Your task to perform on an android device: Go to Reddit.com Image 0: 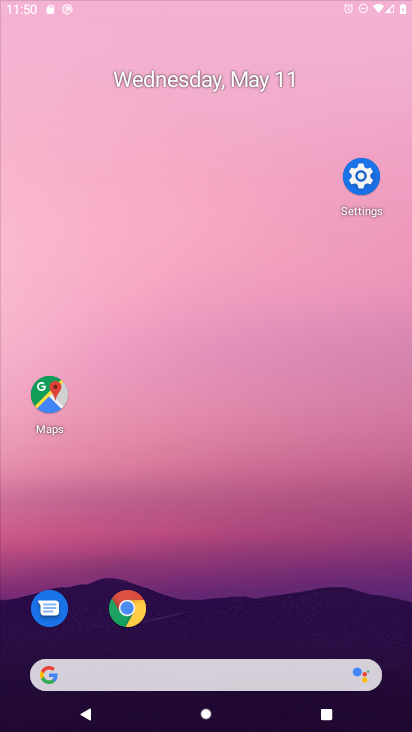
Step 0: drag from (194, 185) to (170, 149)
Your task to perform on an android device: Go to Reddit.com Image 1: 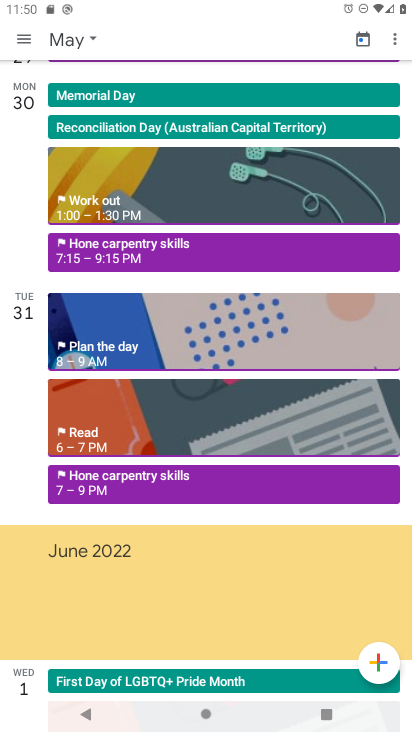
Step 1: press home button
Your task to perform on an android device: Go to Reddit.com Image 2: 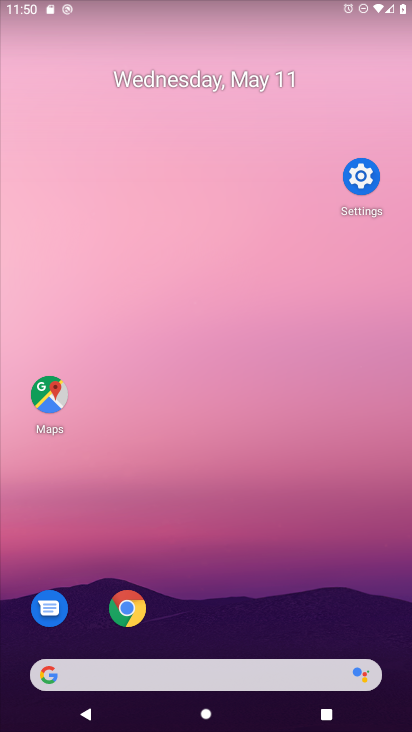
Step 2: click (119, 133)
Your task to perform on an android device: Go to Reddit.com Image 3: 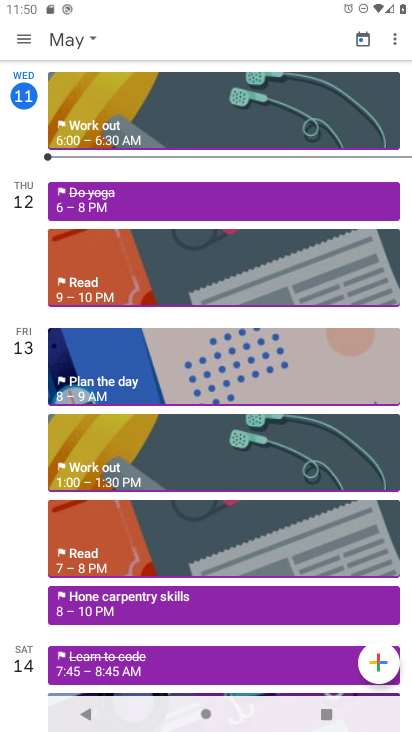
Step 3: press back button
Your task to perform on an android device: Go to Reddit.com Image 4: 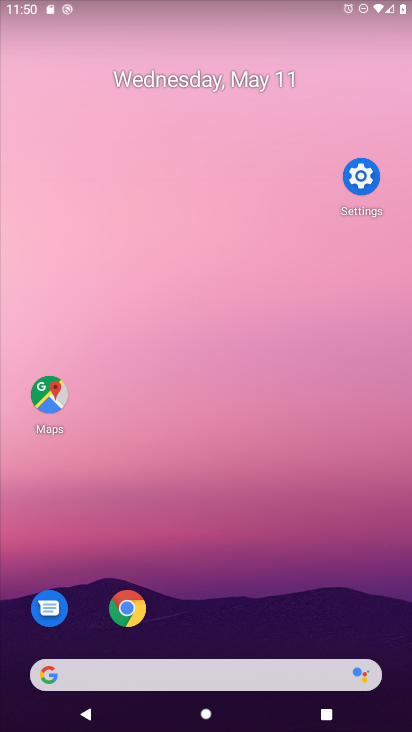
Step 4: drag from (355, 619) to (156, 174)
Your task to perform on an android device: Go to Reddit.com Image 5: 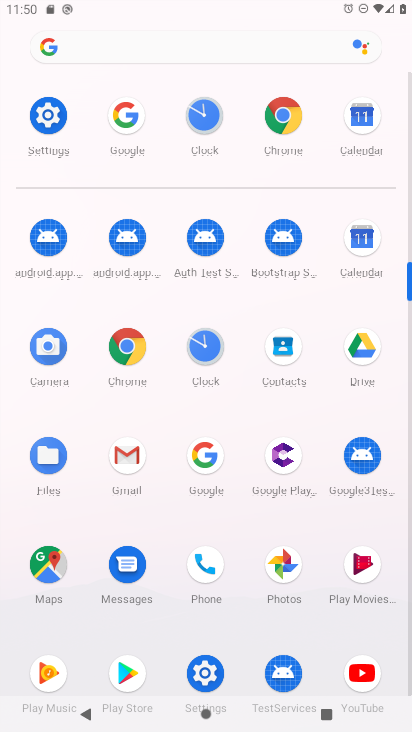
Step 5: click (281, 120)
Your task to perform on an android device: Go to Reddit.com Image 6: 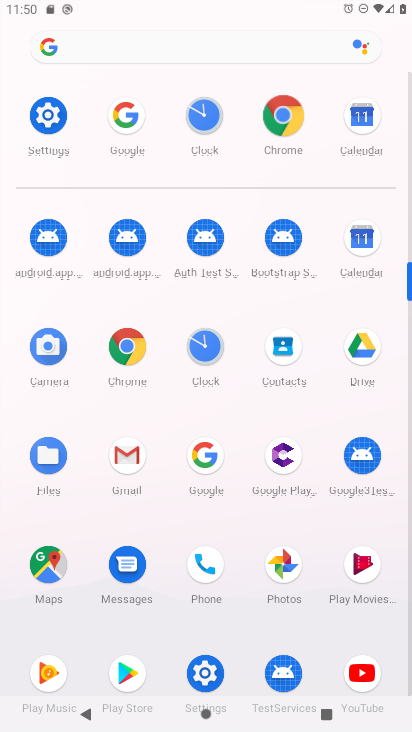
Step 6: click (282, 128)
Your task to perform on an android device: Go to Reddit.com Image 7: 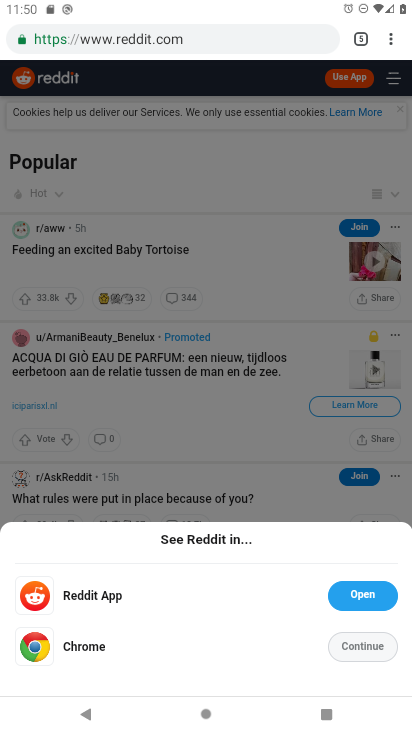
Step 7: drag from (388, 45) to (245, 74)
Your task to perform on an android device: Go to Reddit.com Image 8: 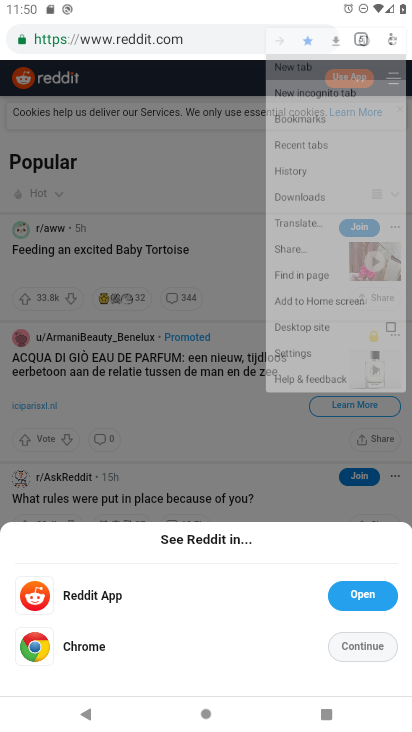
Step 8: click (245, 74)
Your task to perform on an android device: Go to Reddit.com Image 9: 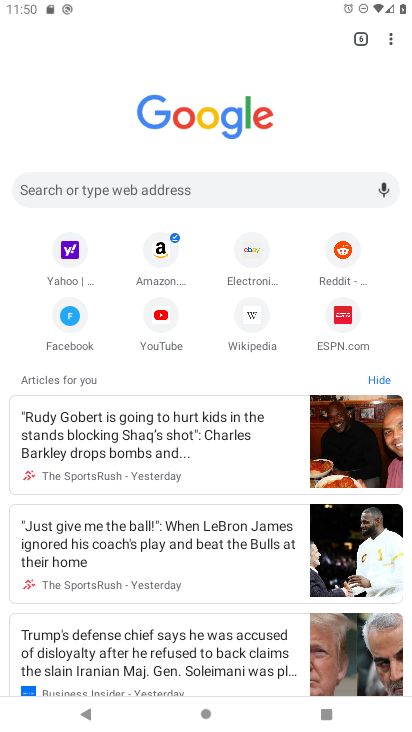
Step 9: click (72, 187)
Your task to perform on an android device: Go to Reddit.com Image 10: 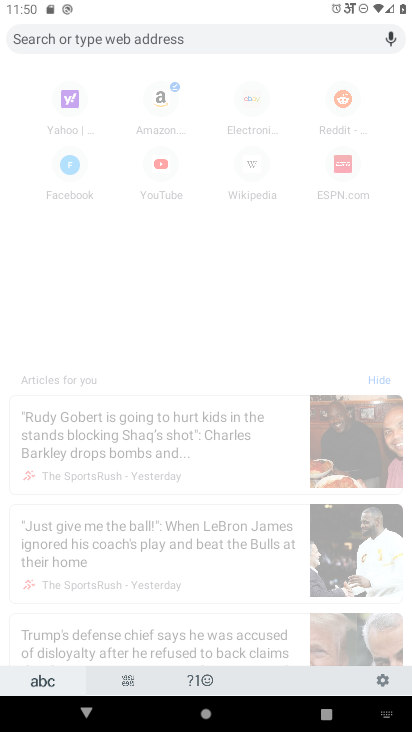
Step 10: click (343, 114)
Your task to perform on an android device: Go to Reddit.com Image 11: 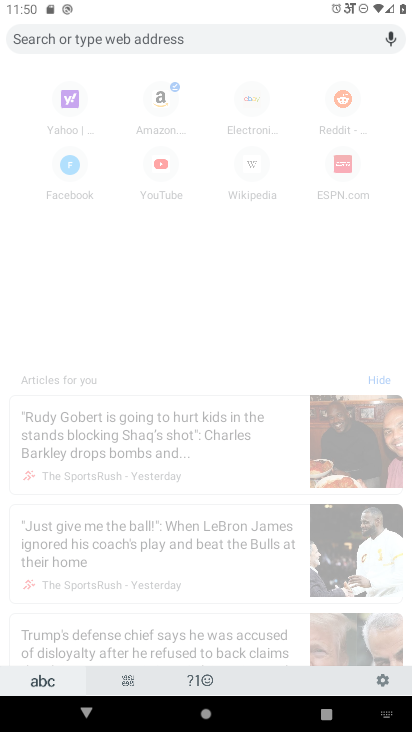
Step 11: click (343, 114)
Your task to perform on an android device: Go to Reddit.com Image 12: 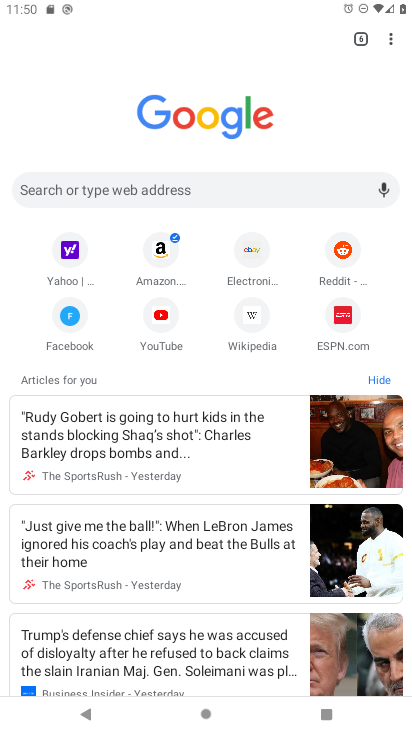
Step 12: click (340, 254)
Your task to perform on an android device: Go to Reddit.com Image 13: 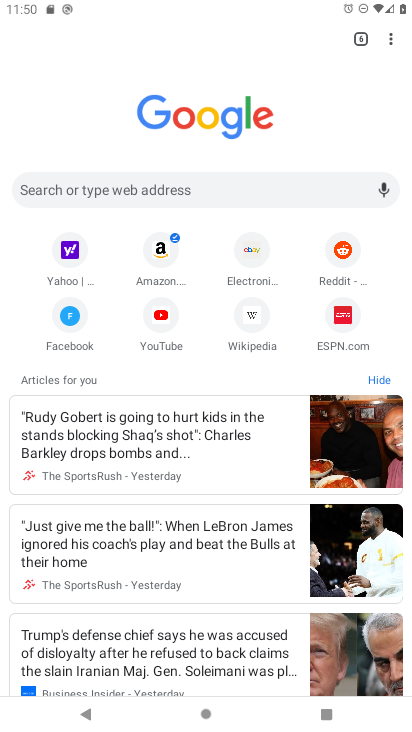
Step 13: click (340, 254)
Your task to perform on an android device: Go to Reddit.com Image 14: 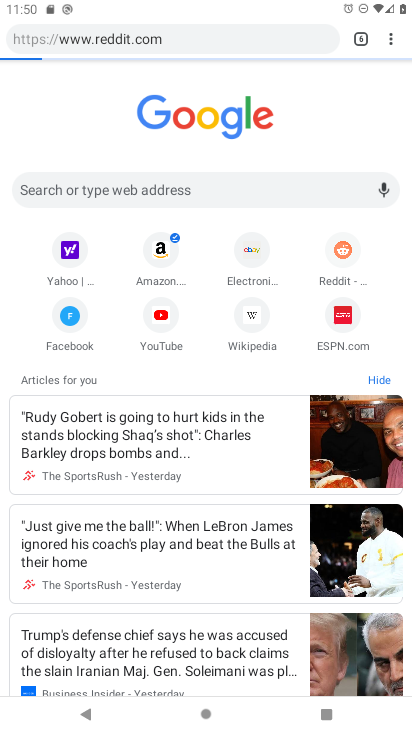
Step 14: click (340, 254)
Your task to perform on an android device: Go to Reddit.com Image 15: 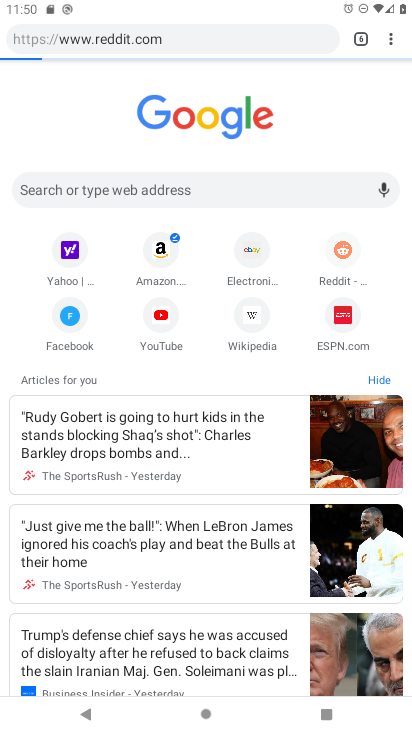
Step 15: click (340, 254)
Your task to perform on an android device: Go to Reddit.com Image 16: 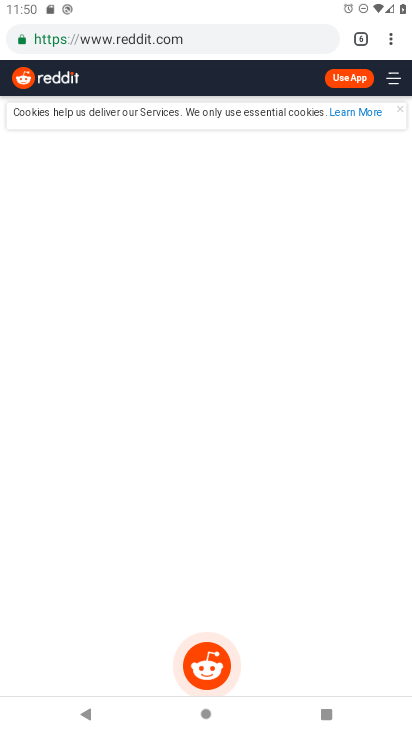
Step 16: task complete